Your task to perform on an android device: Empty the shopping cart on ebay.com. Image 0: 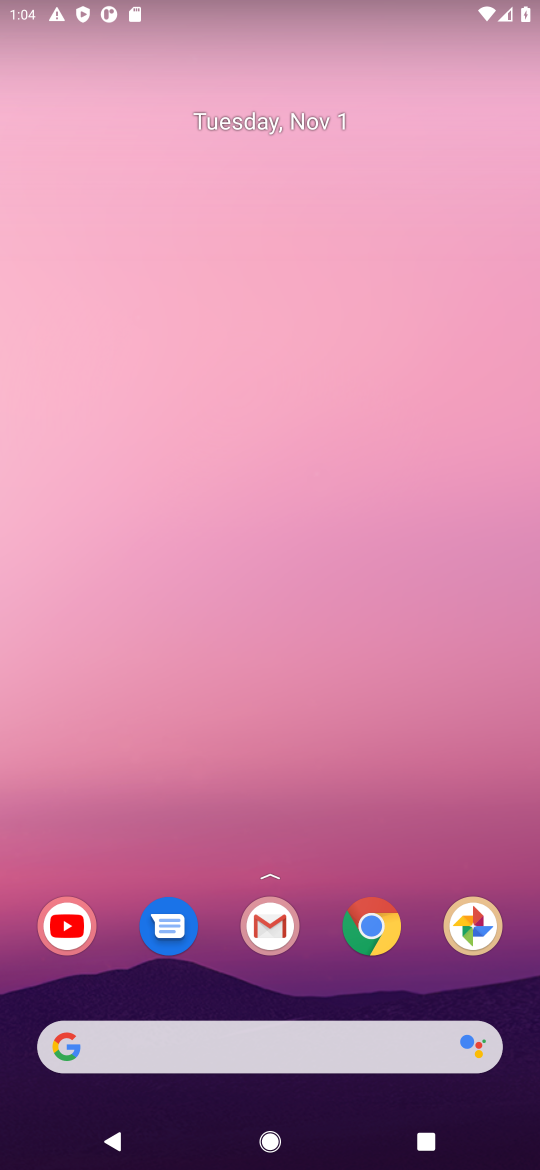
Step 0: click (385, 927)
Your task to perform on an android device: Empty the shopping cart on ebay.com. Image 1: 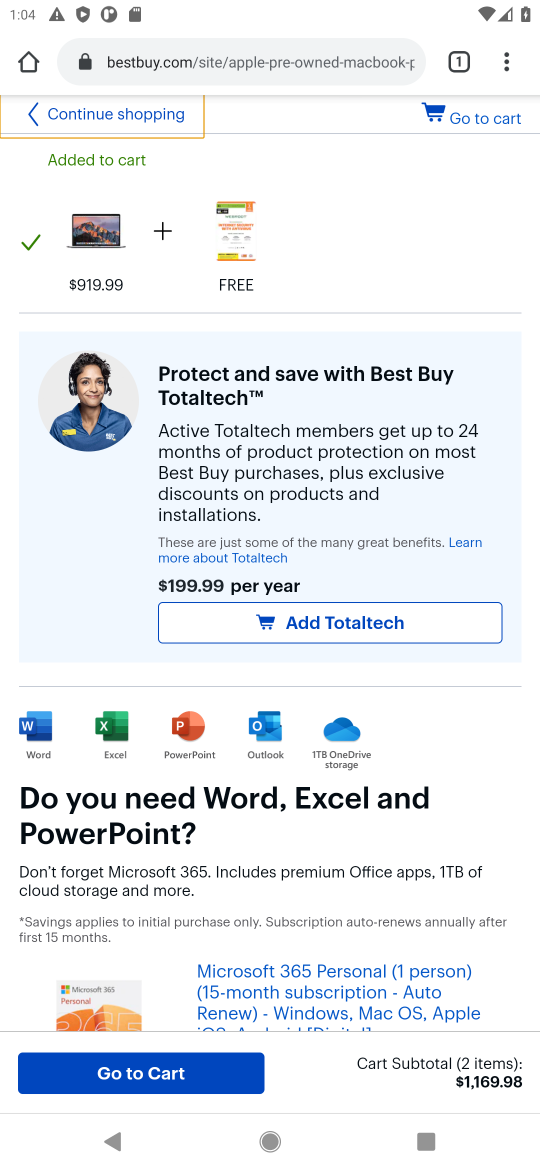
Step 1: click (224, 53)
Your task to perform on an android device: Empty the shopping cart on ebay.com. Image 2: 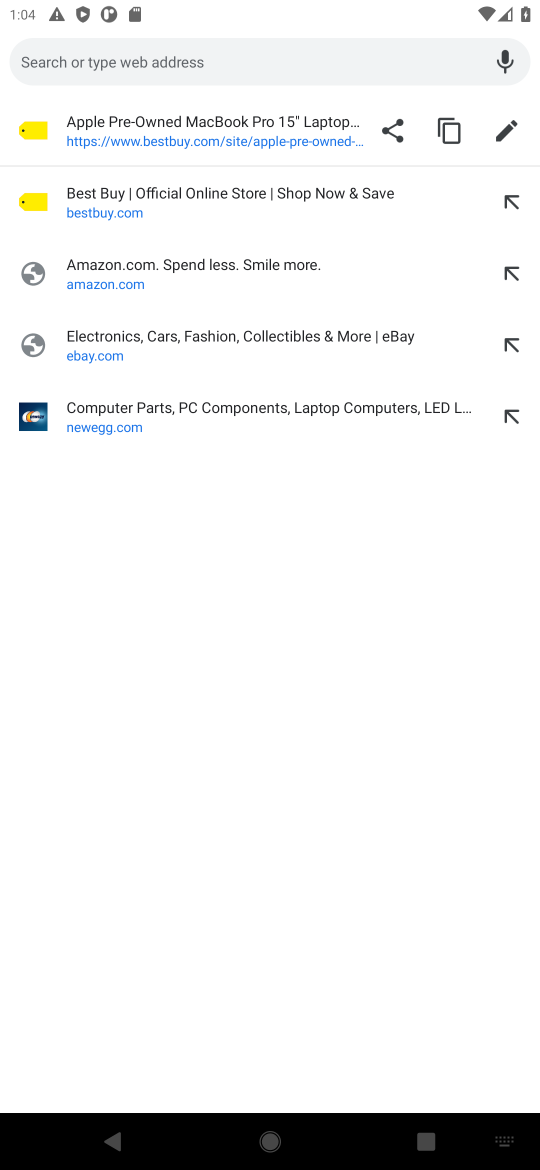
Step 2: type "ebay.com"
Your task to perform on an android device: Empty the shopping cart on ebay.com. Image 3: 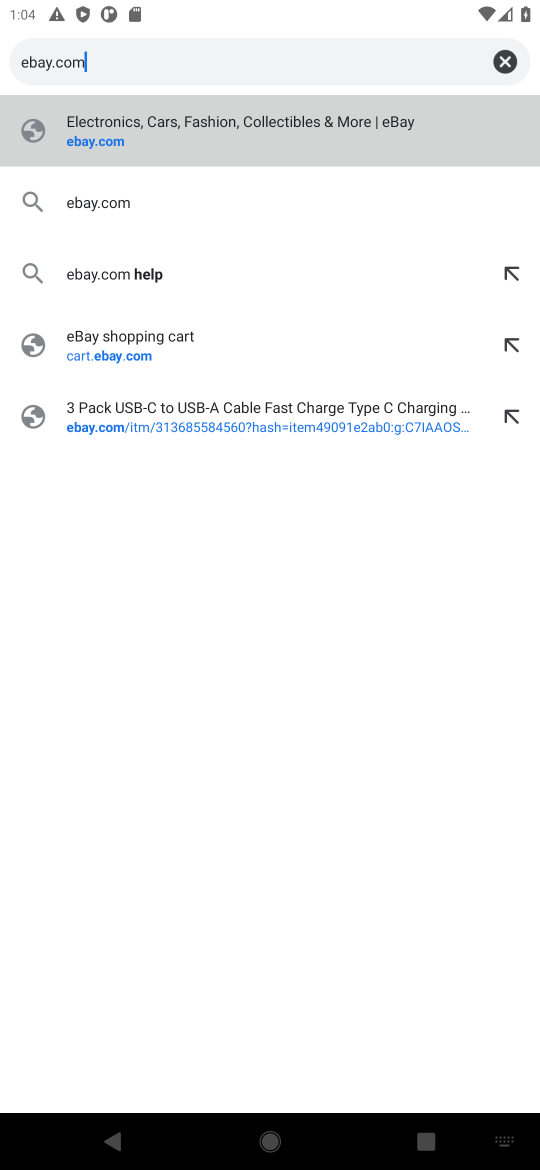
Step 3: press enter
Your task to perform on an android device: Empty the shopping cart on ebay.com. Image 4: 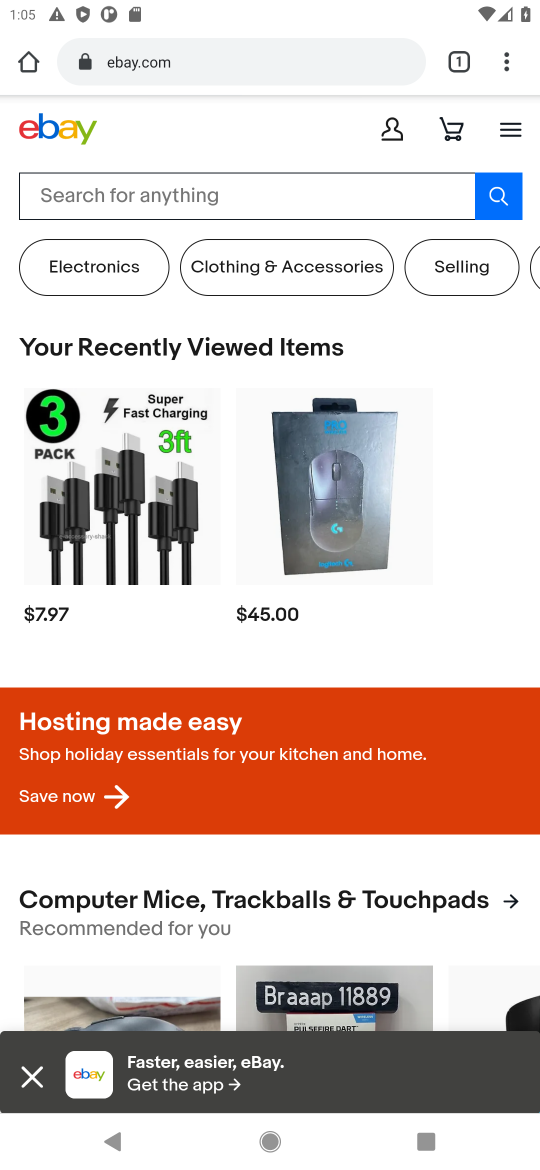
Step 4: click (451, 138)
Your task to perform on an android device: Empty the shopping cart on ebay.com. Image 5: 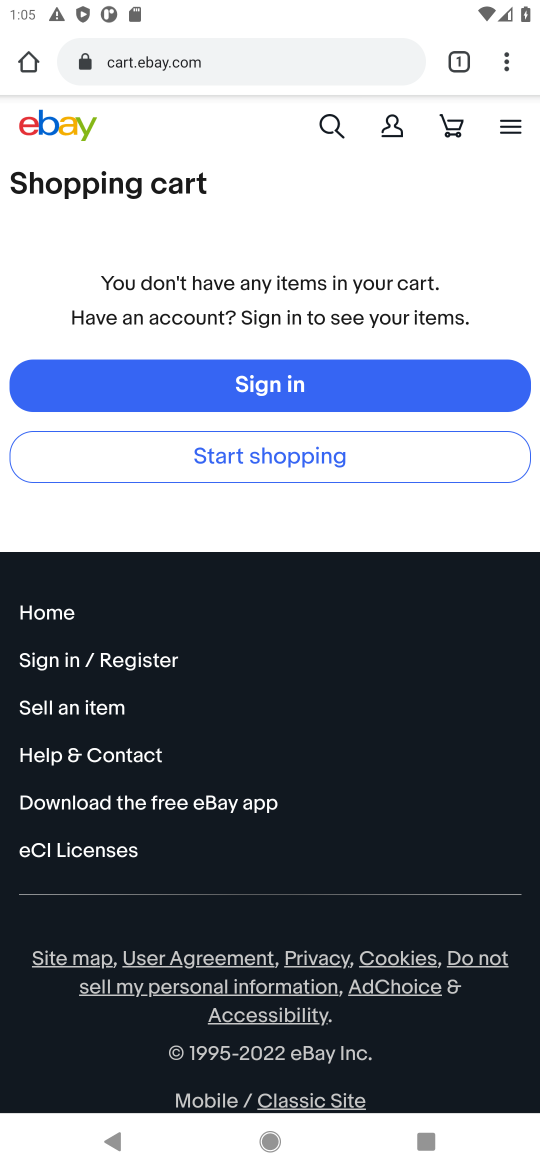
Step 5: task complete